Your task to perform on an android device: set the stopwatch Image 0: 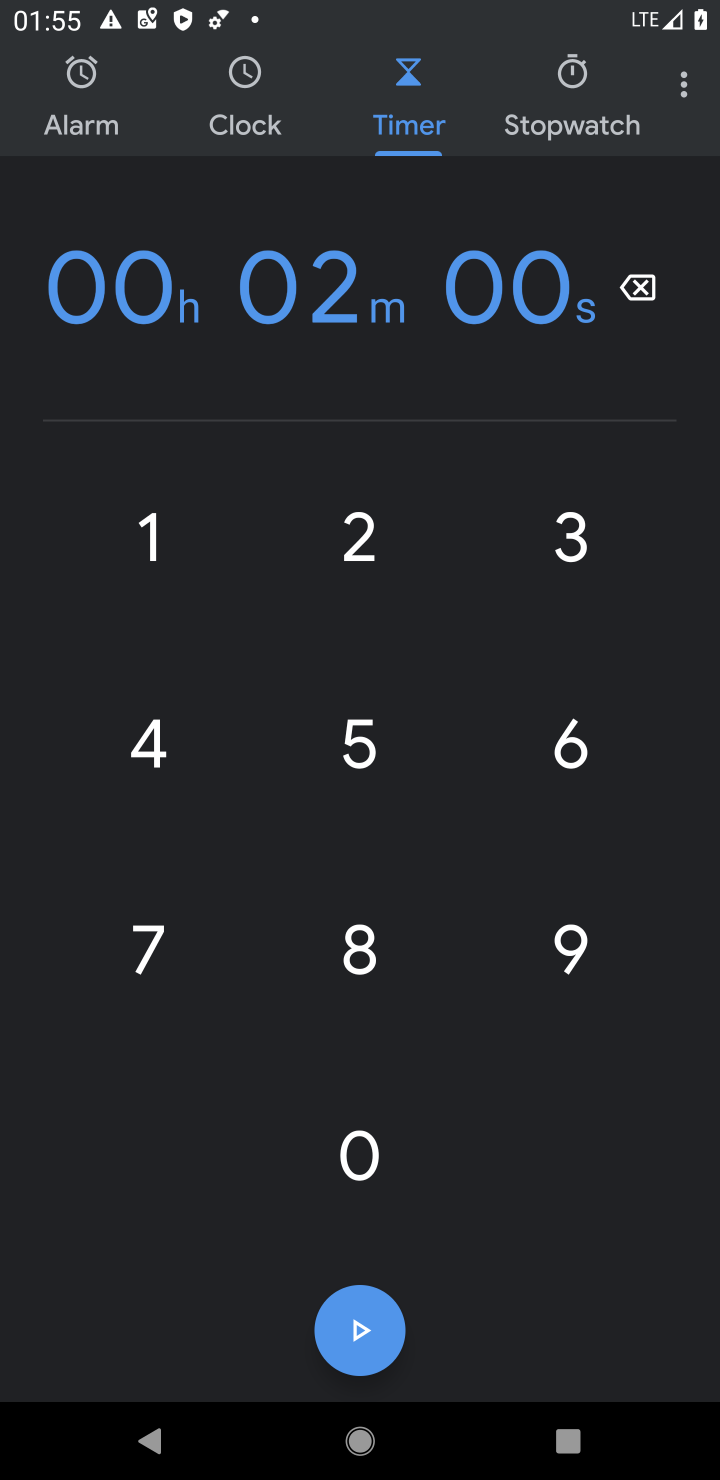
Step 0: click (568, 91)
Your task to perform on an android device: set the stopwatch Image 1: 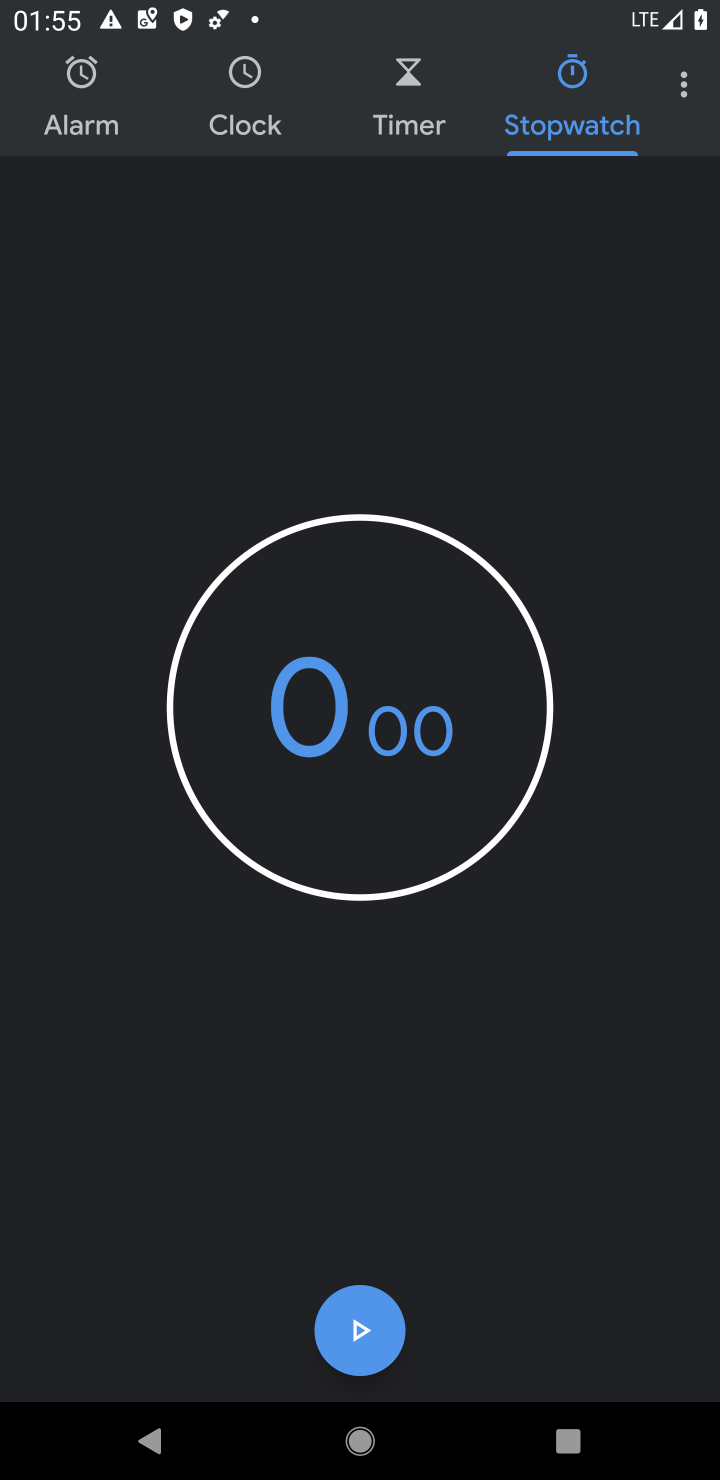
Step 1: task complete